Your task to perform on an android device: set the timer Image 0: 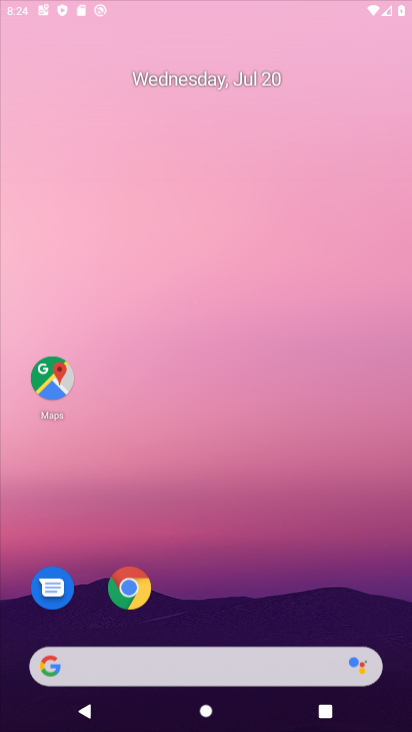
Step 0: drag from (212, 611) to (189, 83)
Your task to perform on an android device: set the timer Image 1: 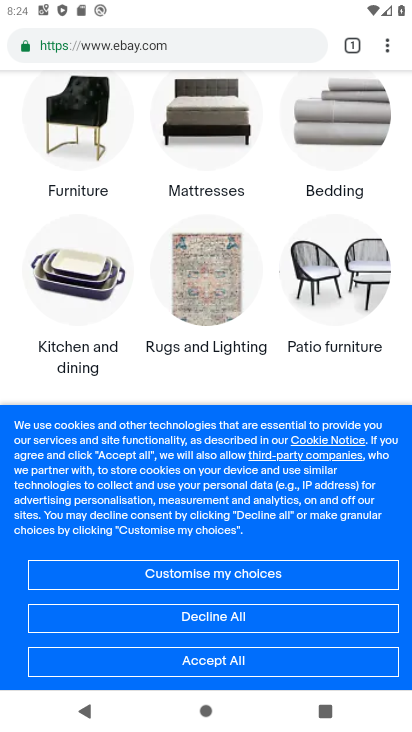
Step 1: press home button
Your task to perform on an android device: set the timer Image 2: 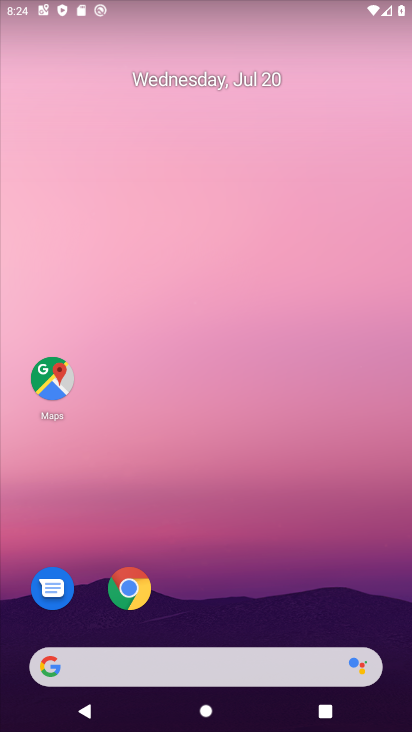
Step 2: drag from (227, 627) to (234, 112)
Your task to perform on an android device: set the timer Image 3: 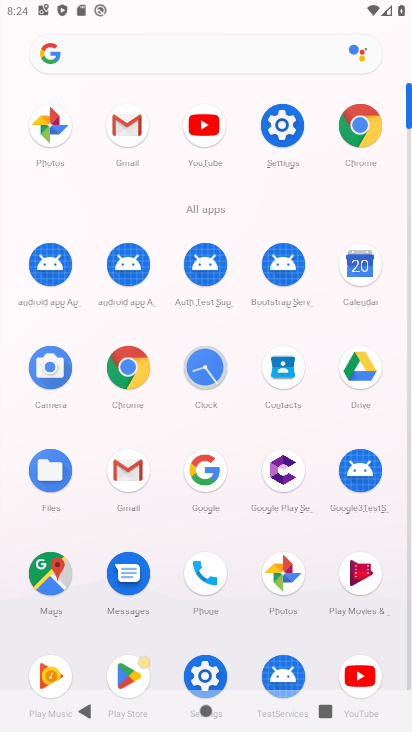
Step 3: click (203, 380)
Your task to perform on an android device: set the timer Image 4: 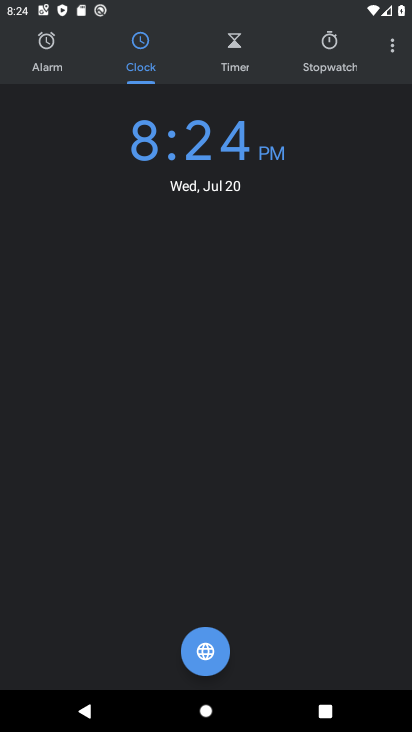
Step 4: click (225, 61)
Your task to perform on an android device: set the timer Image 5: 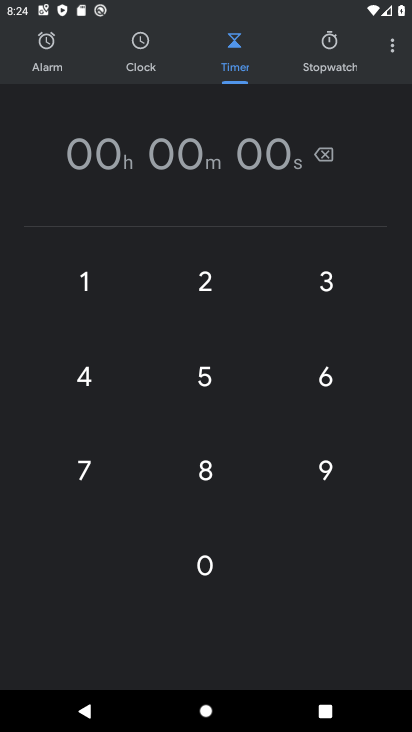
Step 5: click (198, 383)
Your task to perform on an android device: set the timer Image 6: 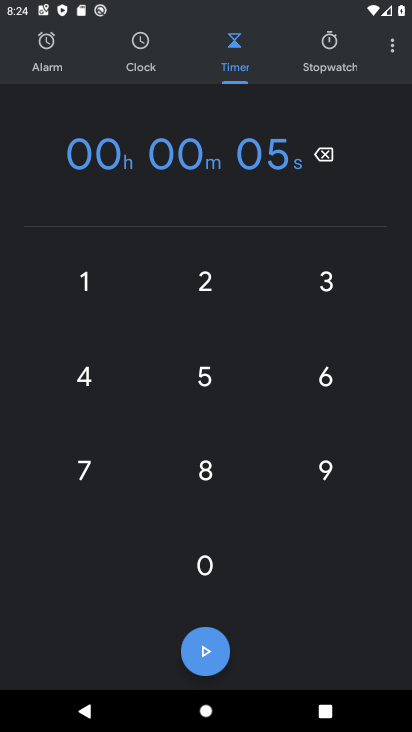
Step 6: click (195, 655)
Your task to perform on an android device: set the timer Image 7: 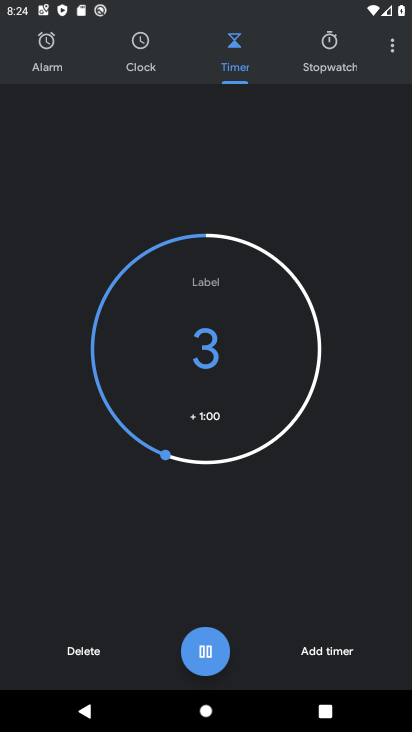
Step 7: task complete